Your task to perform on an android device: find photos in the google photos app Image 0: 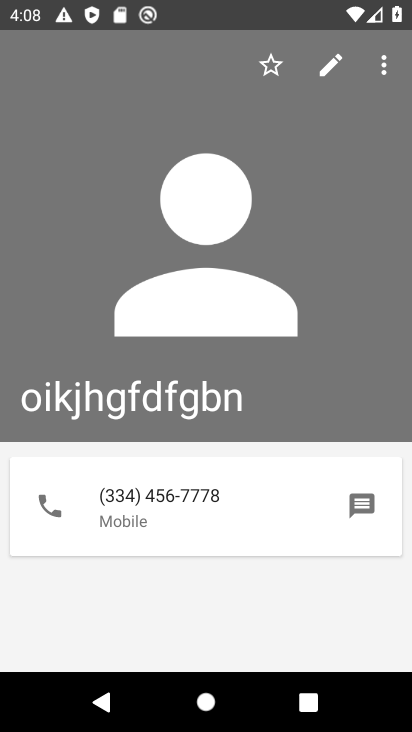
Step 0: press home button
Your task to perform on an android device: find photos in the google photos app Image 1: 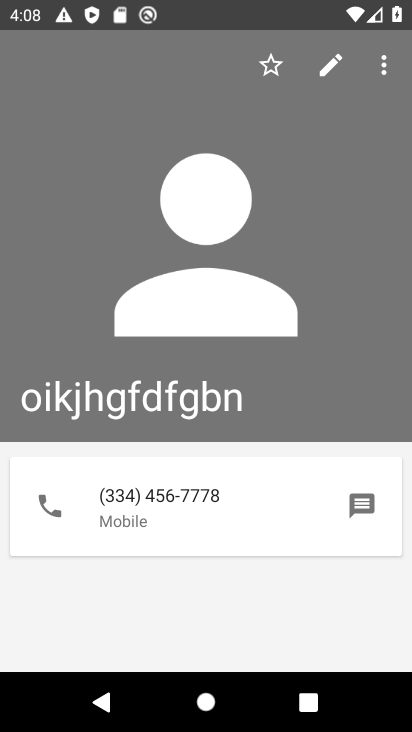
Step 1: press home button
Your task to perform on an android device: find photos in the google photos app Image 2: 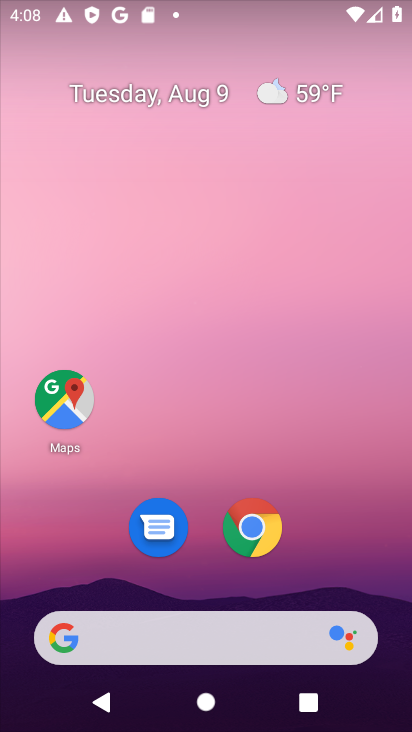
Step 2: drag from (208, 566) to (252, 235)
Your task to perform on an android device: find photos in the google photos app Image 3: 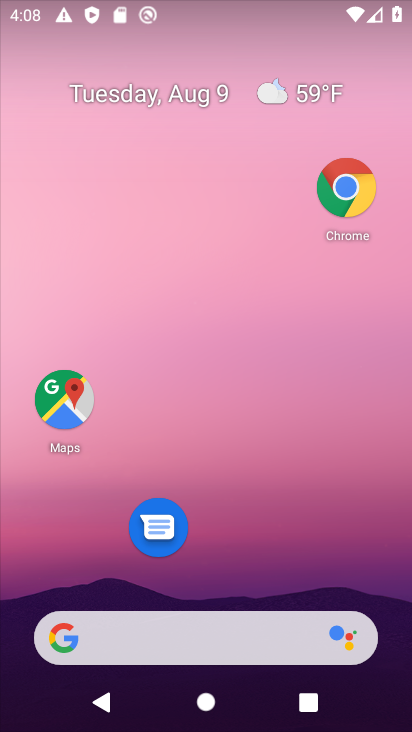
Step 3: drag from (232, 604) to (221, 206)
Your task to perform on an android device: find photos in the google photos app Image 4: 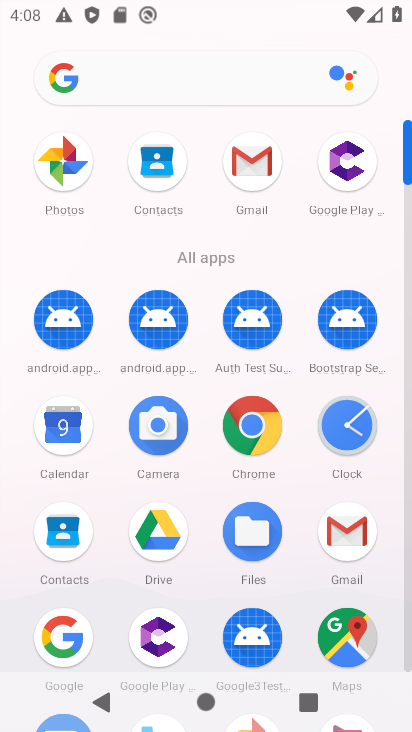
Step 4: click (44, 173)
Your task to perform on an android device: find photos in the google photos app Image 5: 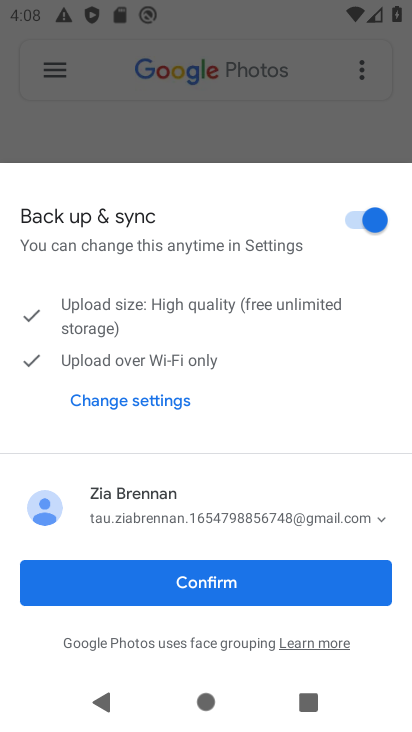
Step 5: click (136, 582)
Your task to perform on an android device: find photos in the google photos app Image 6: 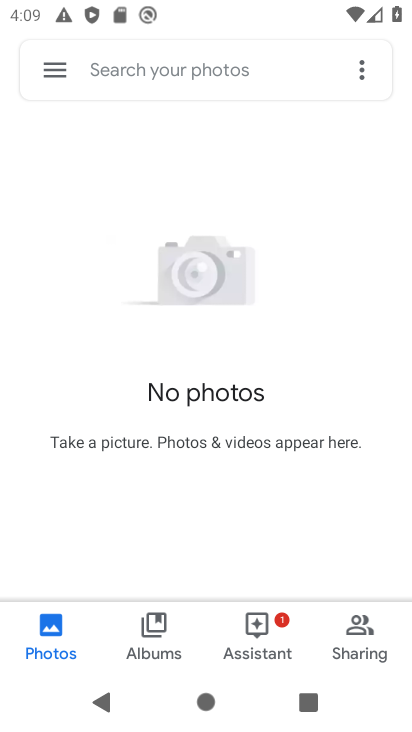
Step 6: task complete